Your task to perform on an android device: Search for sushi restaurants on Maps Image 0: 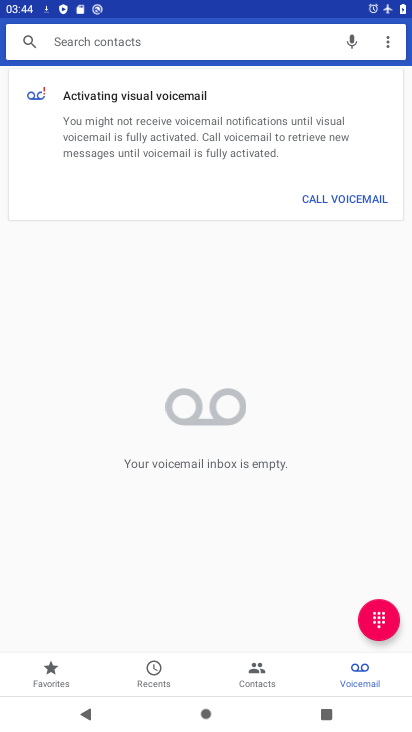
Step 0: press home button
Your task to perform on an android device: Search for sushi restaurants on Maps Image 1: 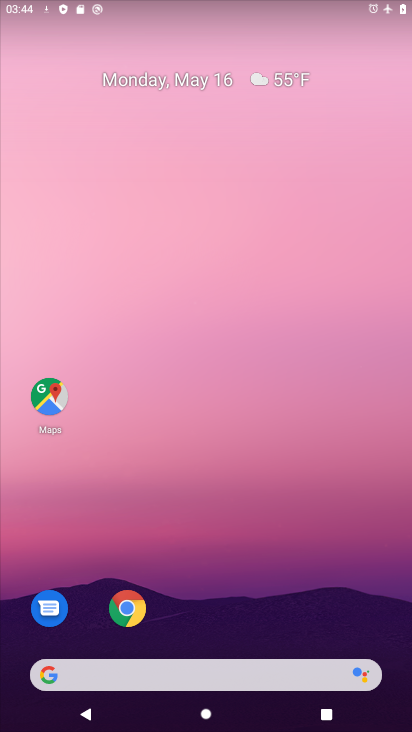
Step 1: click (62, 420)
Your task to perform on an android device: Search for sushi restaurants on Maps Image 2: 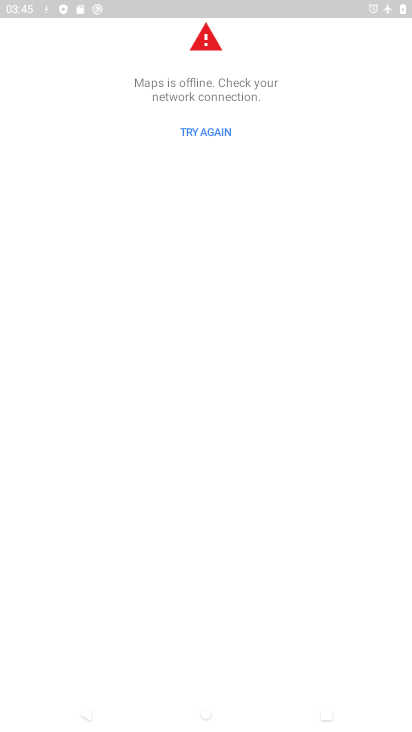
Step 2: task complete